Your task to perform on an android device: Open network settings Image 0: 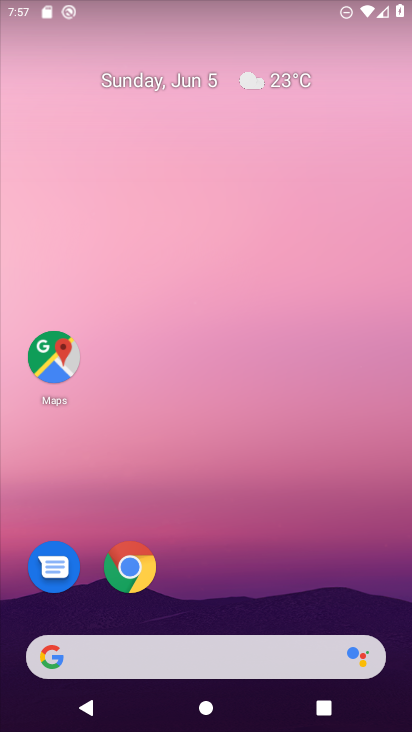
Step 0: click (395, 640)
Your task to perform on an android device: Open network settings Image 1: 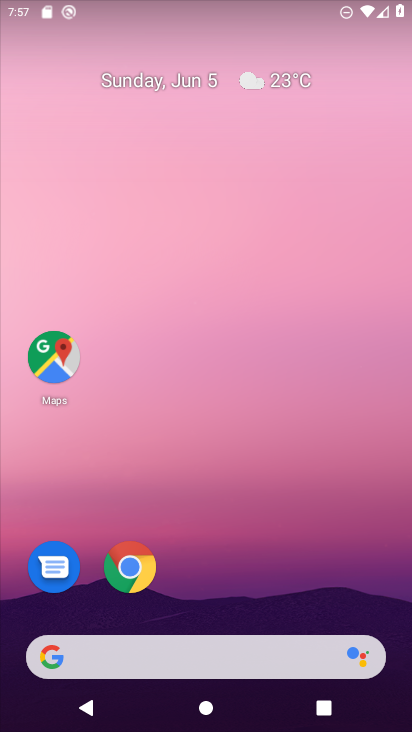
Step 1: drag from (363, 448) to (400, 505)
Your task to perform on an android device: Open network settings Image 2: 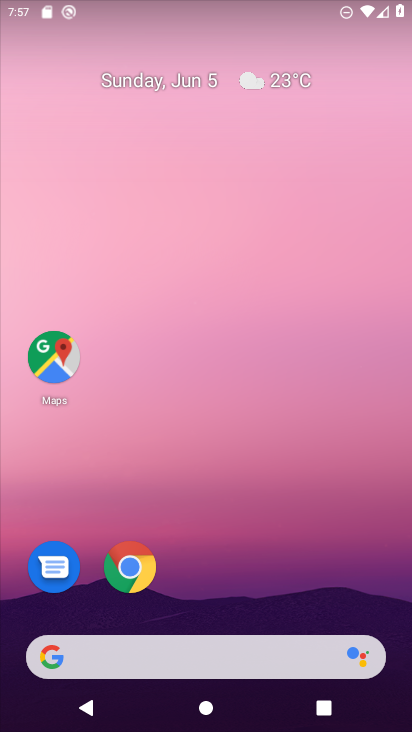
Step 2: drag from (388, 620) to (224, 39)
Your task to perform on an android device: Open network settings Image 3: 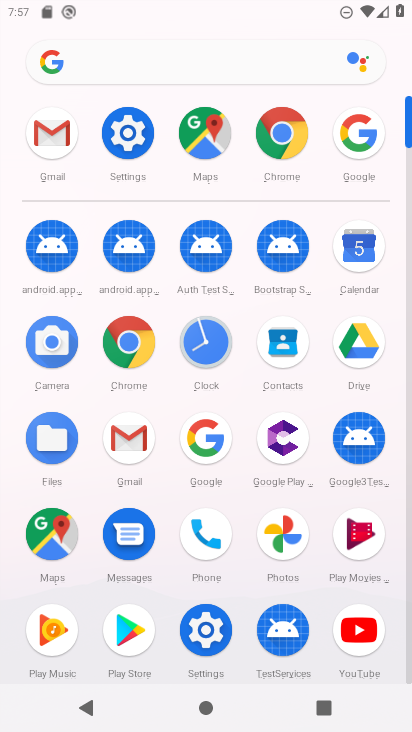
Step 3: click (141, 138)
Your task to perform on an android device: Open network settings Image 4: 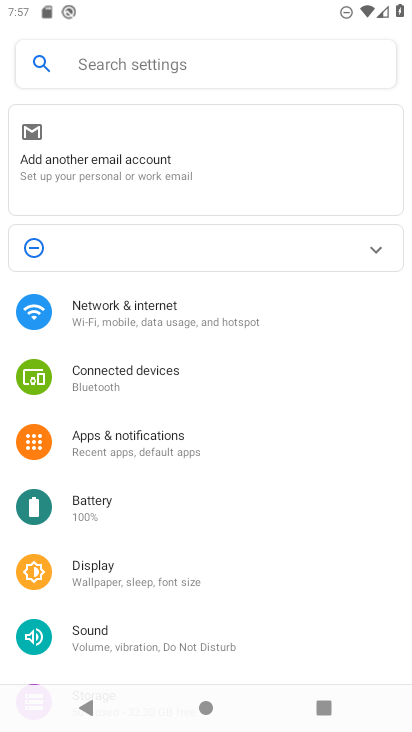
Step 4: click (134, 316)
Your task to perform on an android device: Open network settings Image 5: 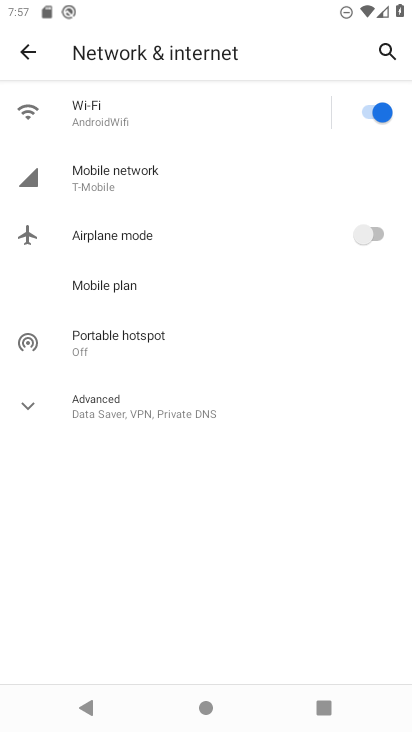
Step 5: task complete